Your task to perform on an android device: visit the assistant section in the google photos Image 0: 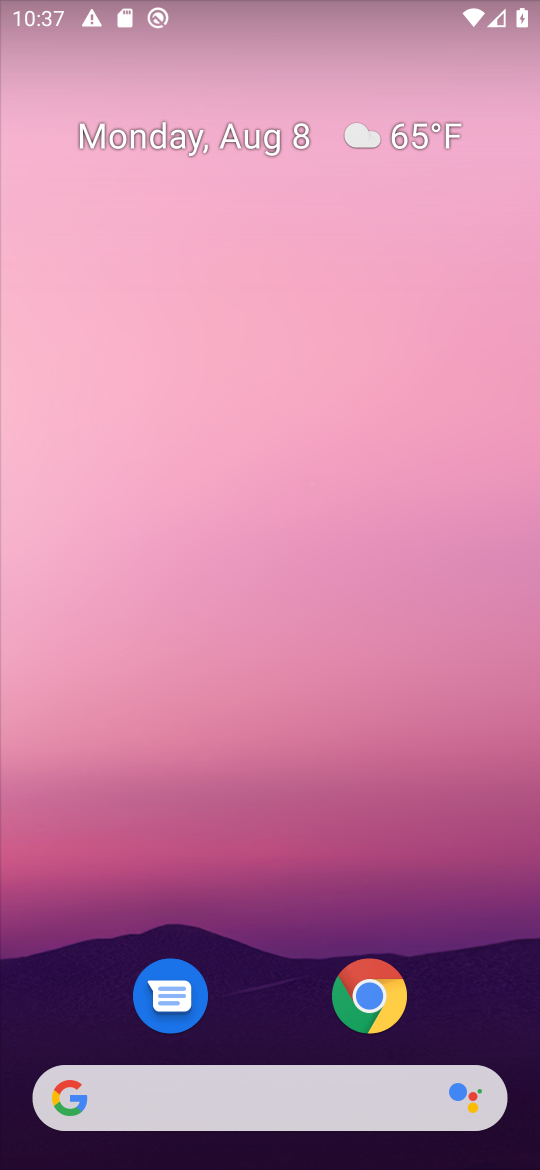
Step 0: press home button
Your task to perform on an android device: visit the assistant section in the google photos Image 1: 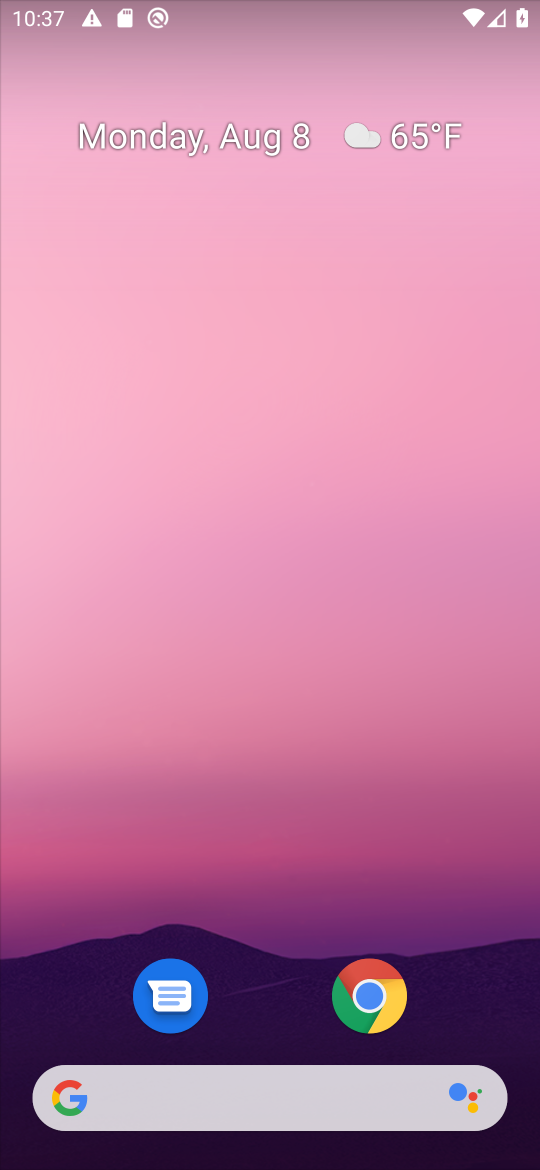
Step 1: drag from (305, 1046) to (306, 174)
Your task to perform on an android device: visit the assistant section in the google photos Image 2: 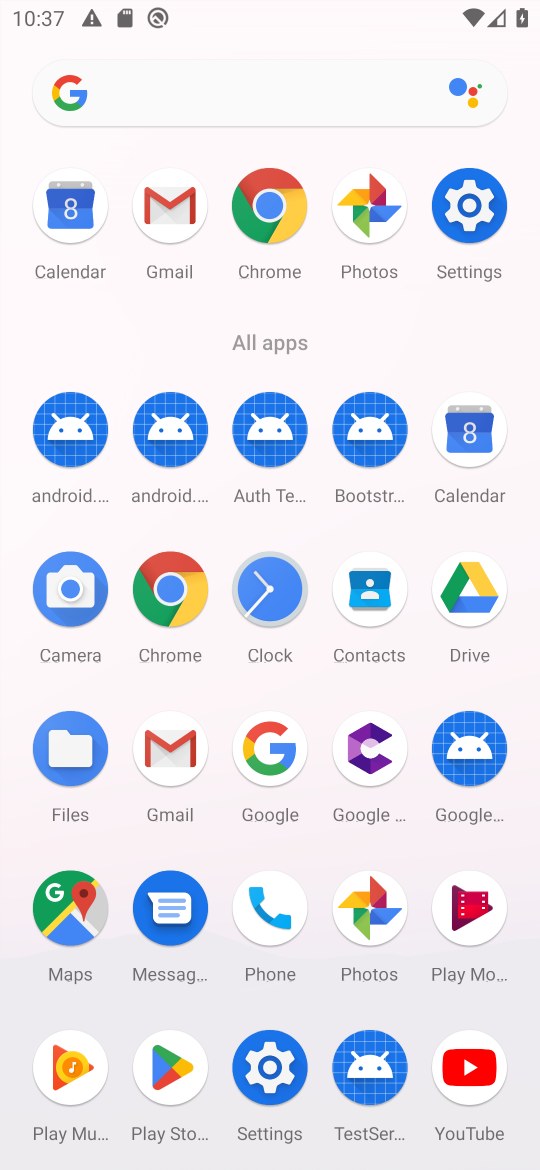
Step 2: click (373, 228)
Your task to perform on an android device: visit the assistant section in the google photos Image 3: 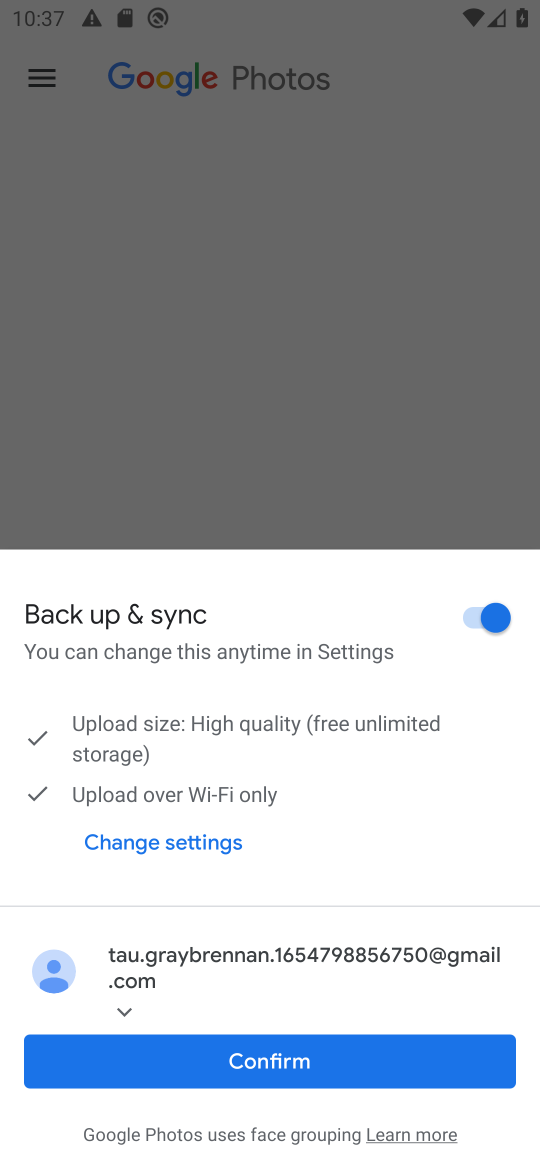
Step 3: click (288, 1061)
Your task to perform on an android device: visit the assistant section in the google photos Image 4: 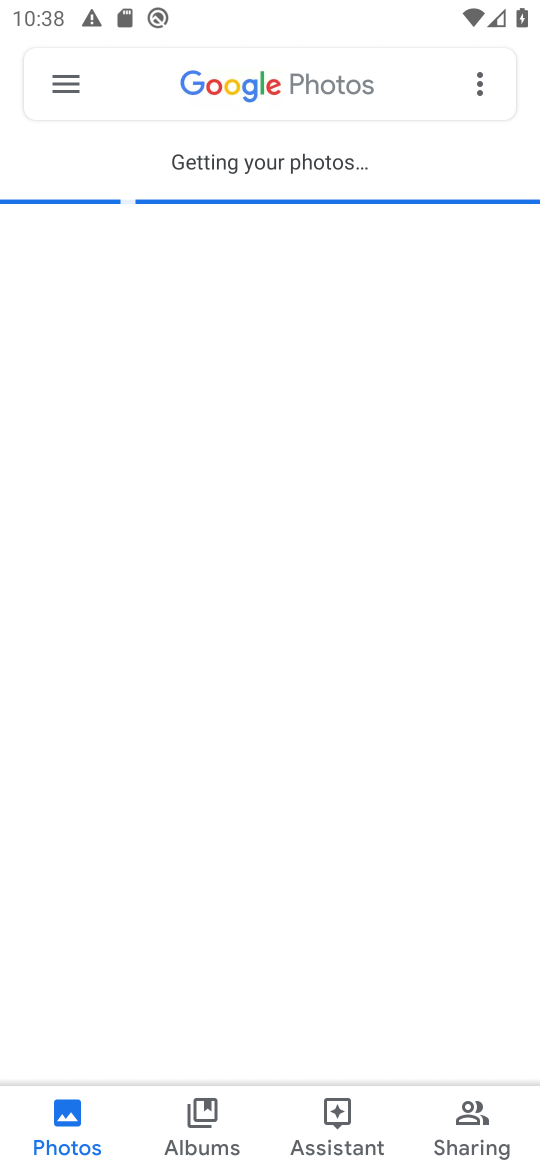
Step 4: click (327, 1112)
Your task to perform on an android device: visit the assistant section in the google photos Image 5: 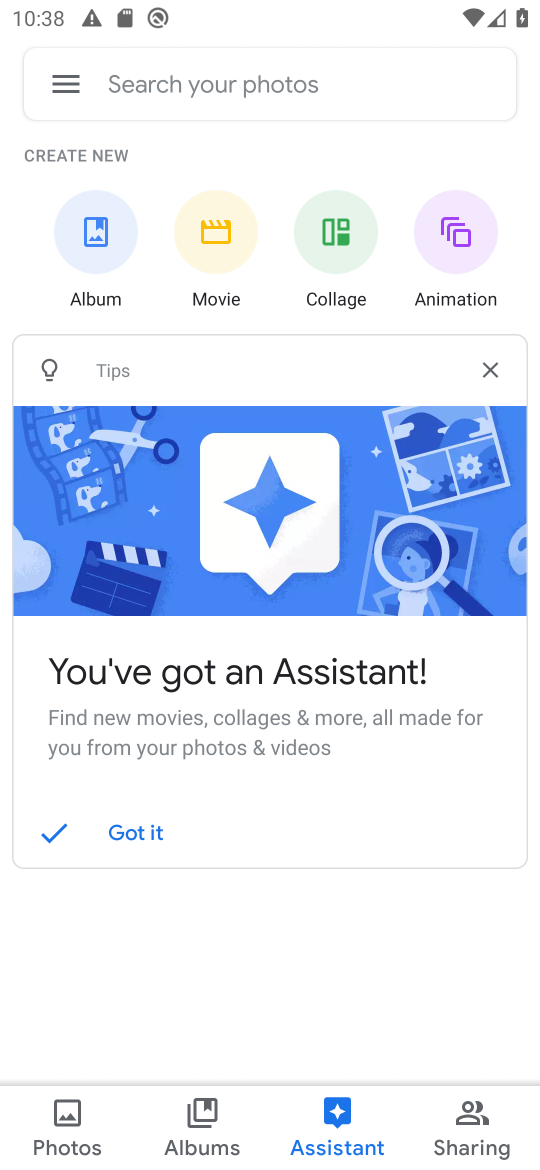
Step 5: task complete